Your task to perform on an android device: Open wifi settings Image 0: 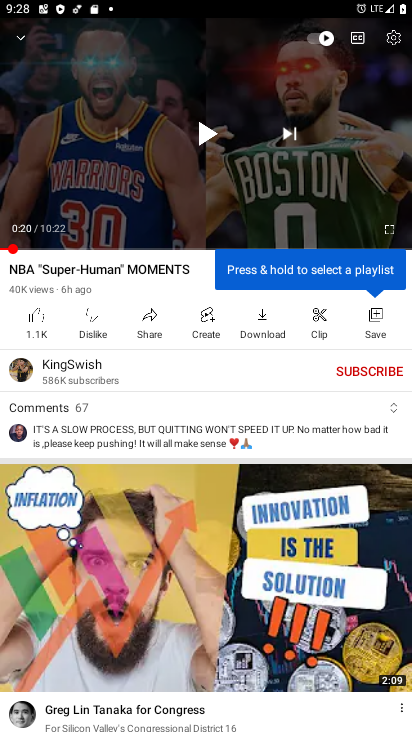
Step 0: press home button
Your task to perform on an android device: Open wifi settings Image 1: 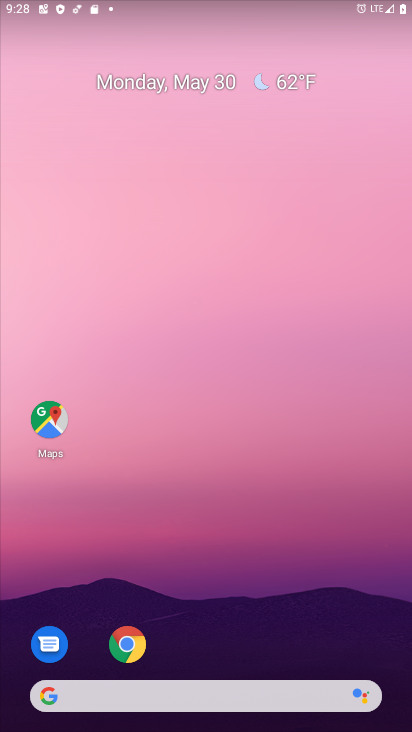
Step 1: drag from (360, 664) to (286, 226)
Your task to perform on an android device: Open wifi settings Image 2: 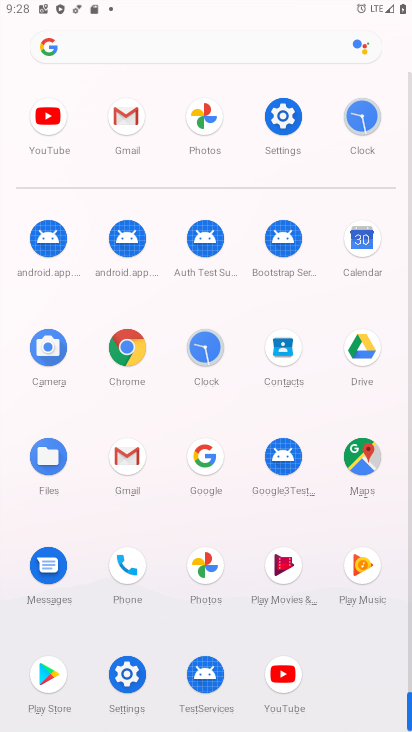
Step 2: click (126, 672)
Your task to perform on an android device: Open wifi settings Image 3: 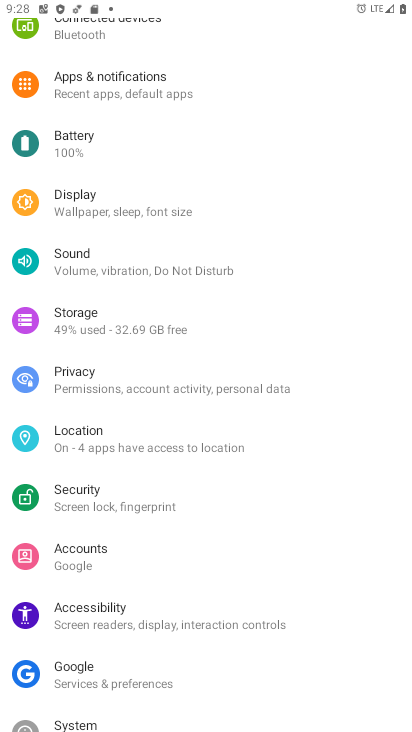
Step 3: click (300, 465)
Your task to perform on an android device: Open wifi settings Image 4: 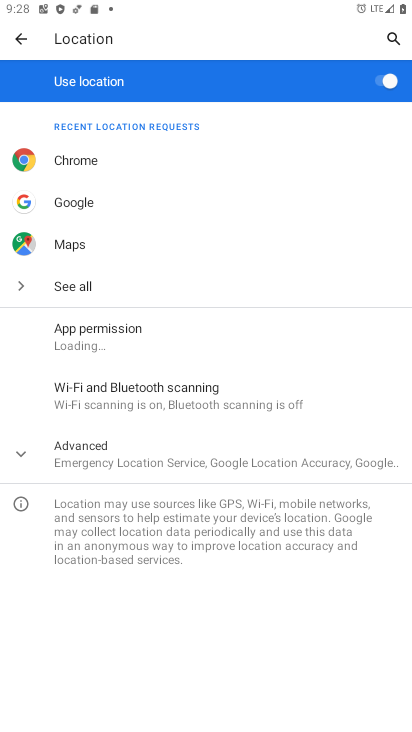
Step 4: press back button
Your task to perform on an android device: Open wifi settings Image 5: 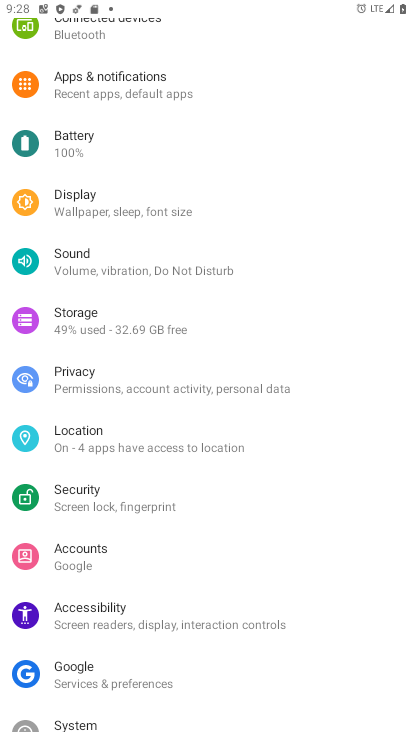
Step 5: drag from (319, 124) to (348, 476)
Your task to perform on an android device: Open wifi settings Image 6: 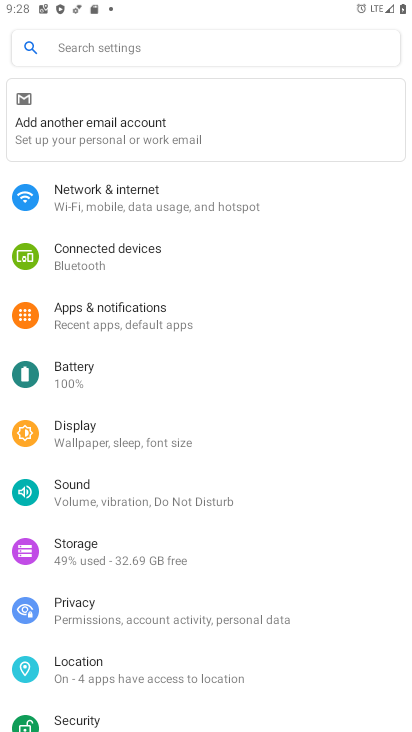
Step 6: click (79, 195)
Your task to perform on an android device: Open wifi settings Image 7: 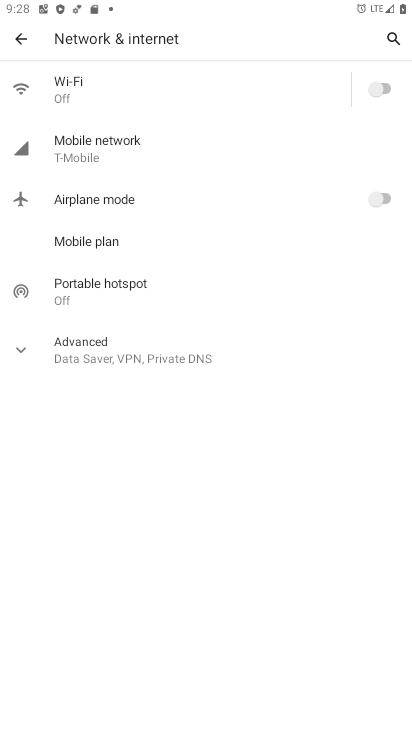
Step 7: click (50, 77)
Your task to perform on an android device: Open wifi settings Image 8: 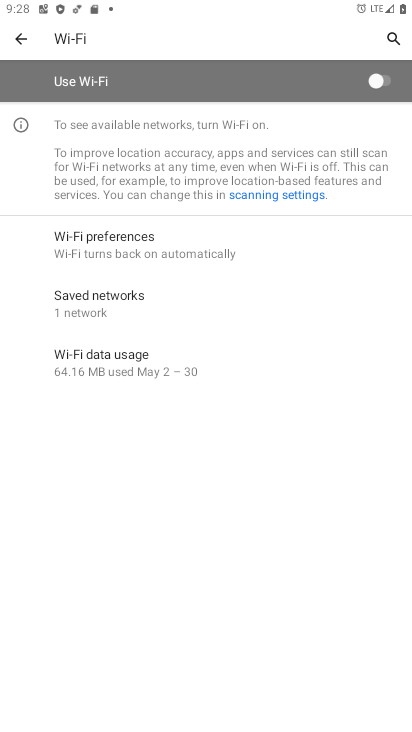
Step 8: task complete